Your task to perform on an android device: install app "Speedtest by Ookla" Image 0: 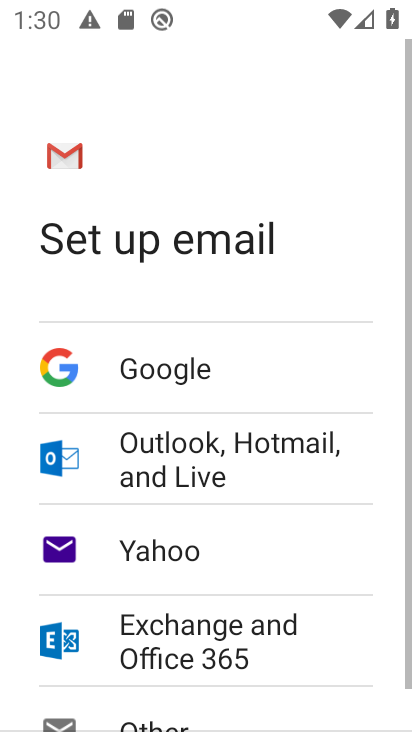
Step 0: press home button
Your task to perform on an android device: install app "Speedtest by Ookla" Image 1: 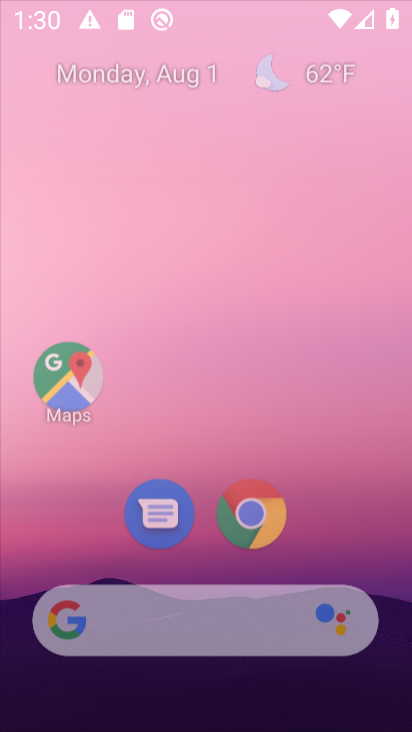
Step 1: drag from (393, 648) to (295, 38)
Your task to perform on an android device: install app "Speedtest by Ookla" Image 2: 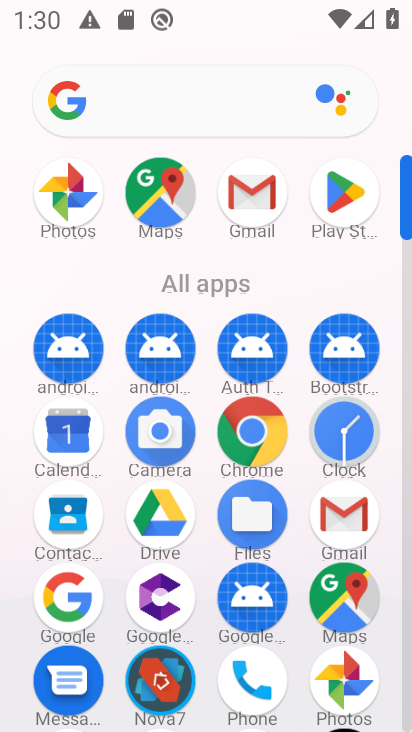
Step 2: click (343, 209)
Your task to perform on an android device: install app "Speedtest by Ookla" Image 3: 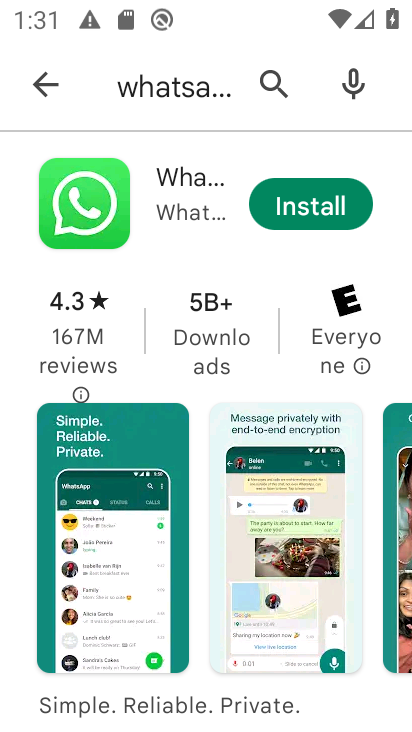
Step 3: press back button
Your task to perform on an android device: install app "Speedtest by Ookla" Image 4: 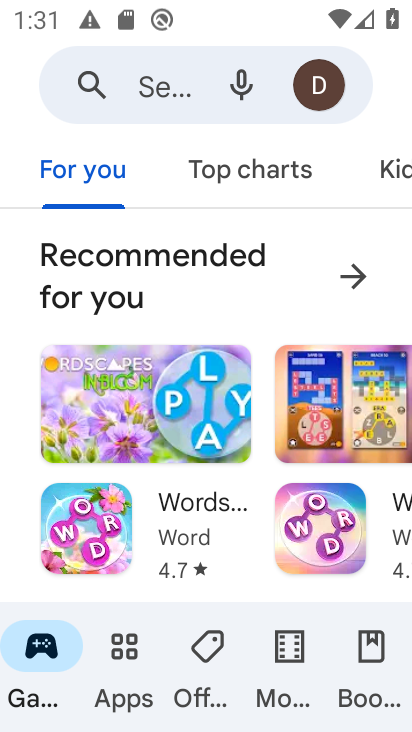
Step 4: click (163, 85)
Your task to perform on an android device: install app "Speedtest by Ookla" Image 5: 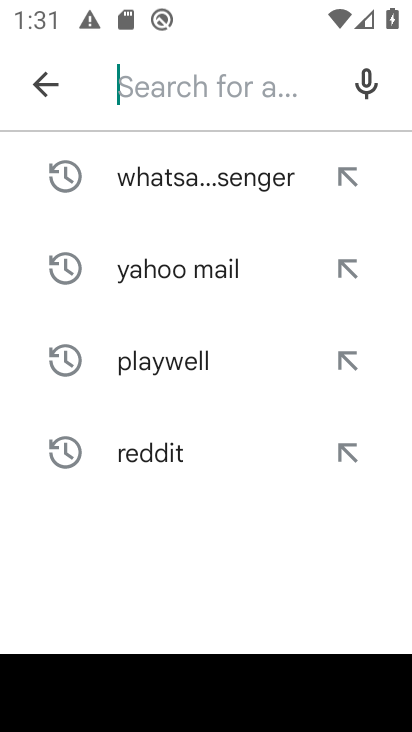
Step 5: type "Speedtest by Ookla"
Your task to perform on an android device: install app "Speedtest by Ookla" Image 6: 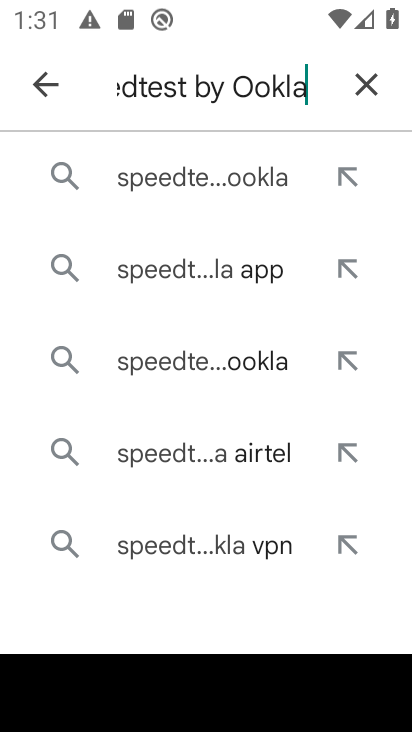
Step 6: click (128, 171)
Your task to perform on an android device: install app "Speedtest by Ookla" Image 7: 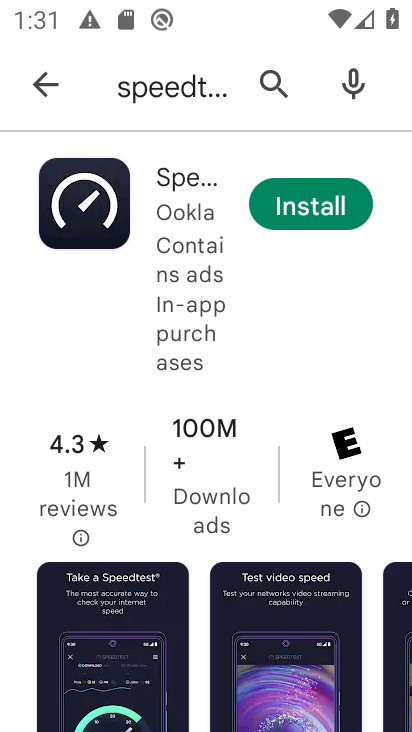
Step 7: click (301, 204)
Your task to perform on an android device: install app "Speedtest by Ookla" Image 8: 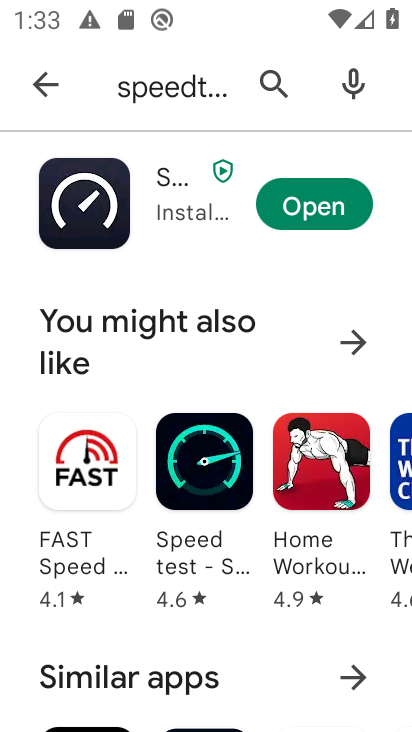
Step 8: task complete